Your task to perform on an android device: turn on the 24-hour format for clock Image 0: 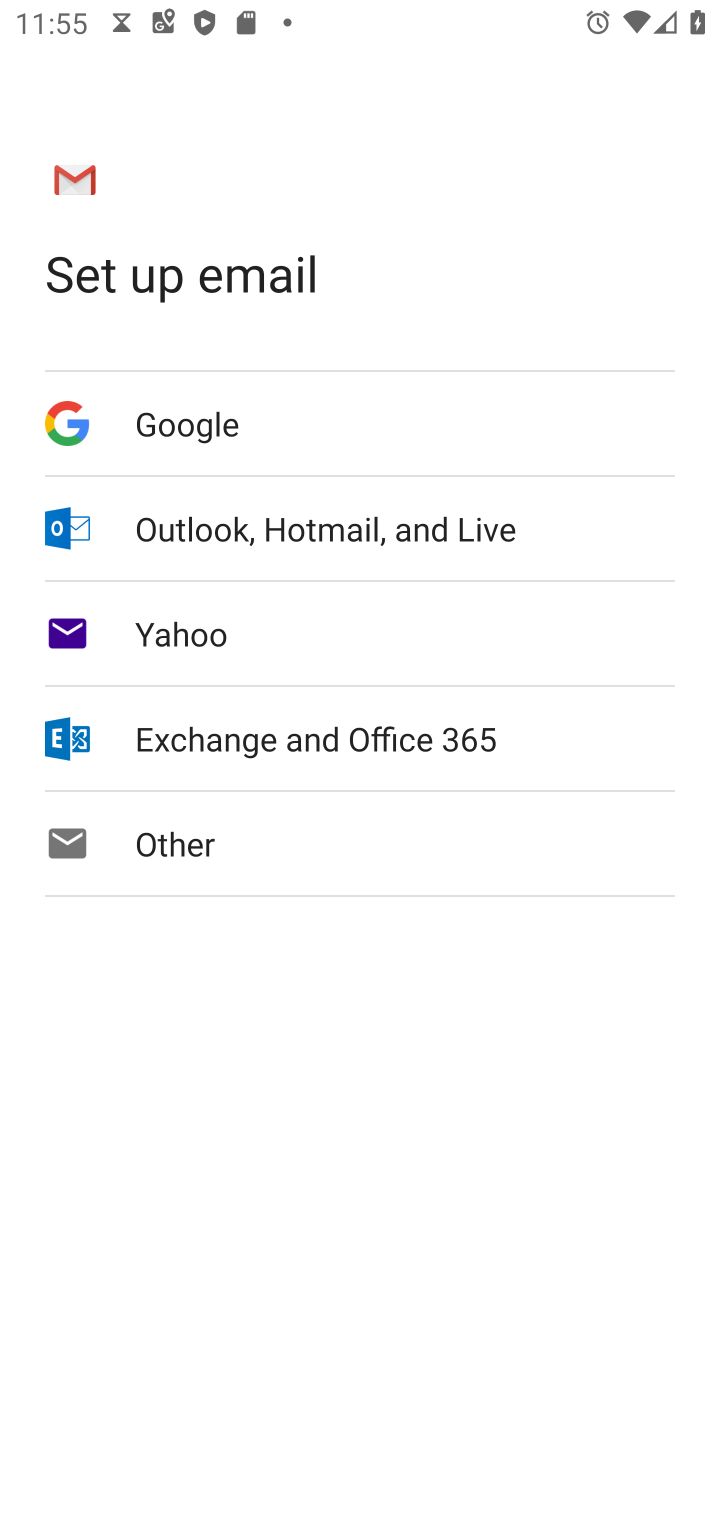
Step 0: press home button
Your task to perform on an android device: turn on the 24-hour format for clock Image 1: 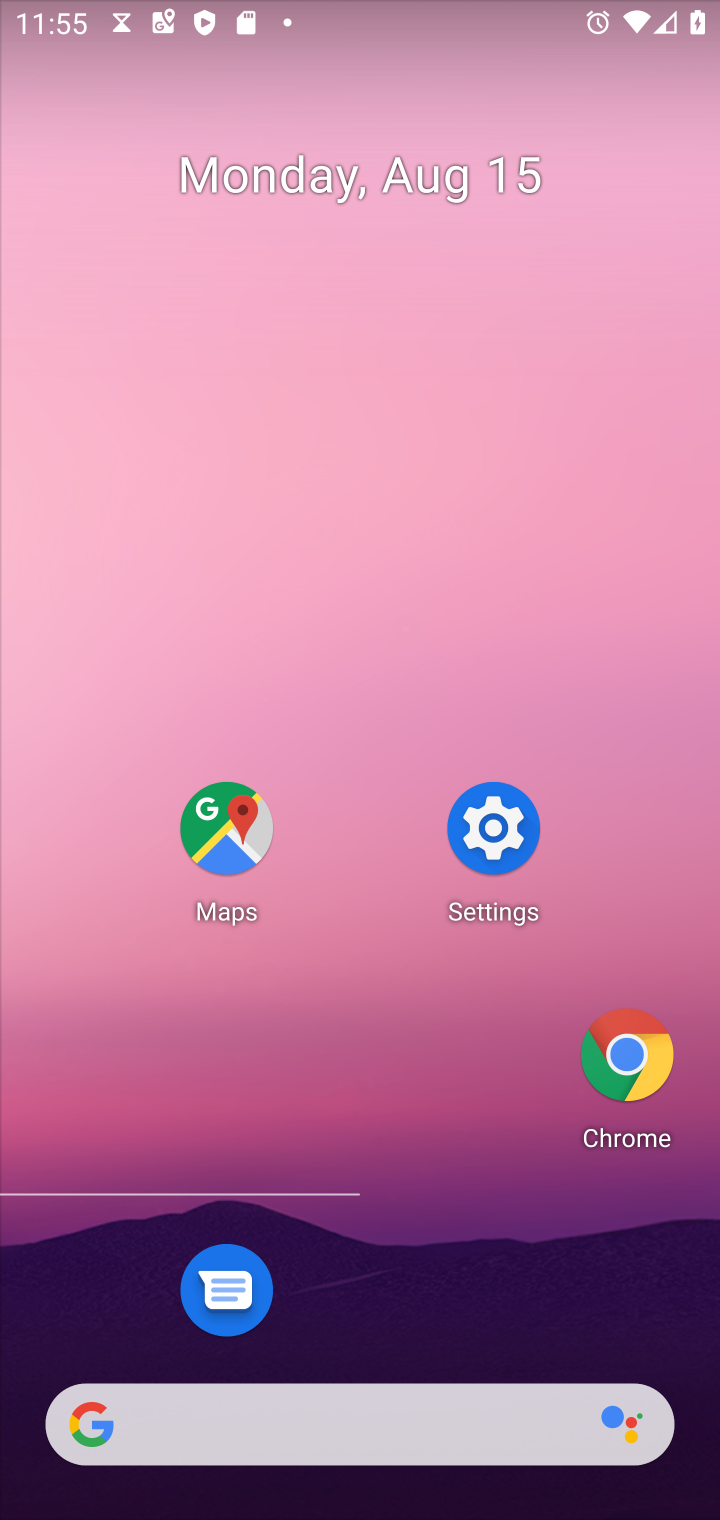
Step 1: drag from (351, 1333) to (645, 0)
Your task to perform on an android device: turn on the 24-hour format for clock Image 2: 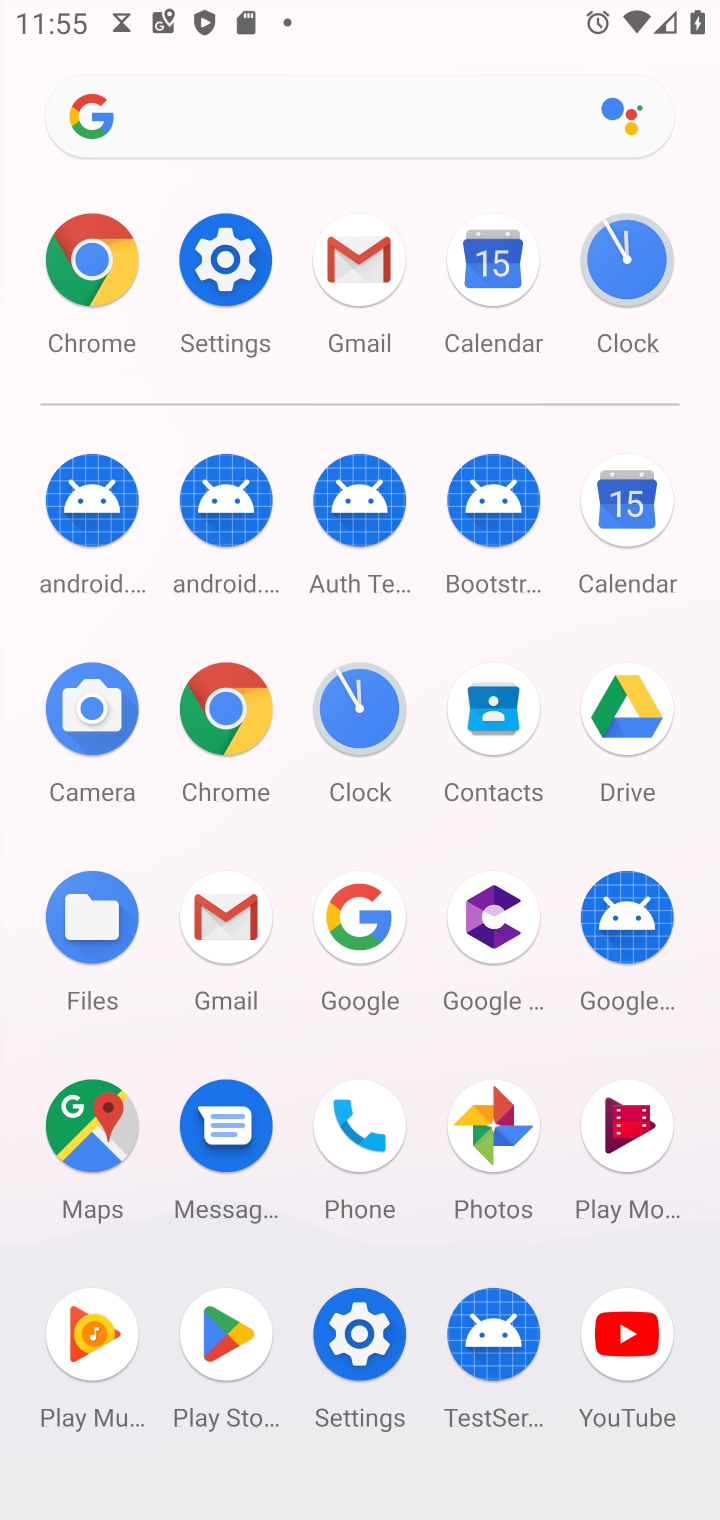
Step 2: click (362, 706)
Your task to perform on an android device: turn on the 24-hour format for clock Image 3: 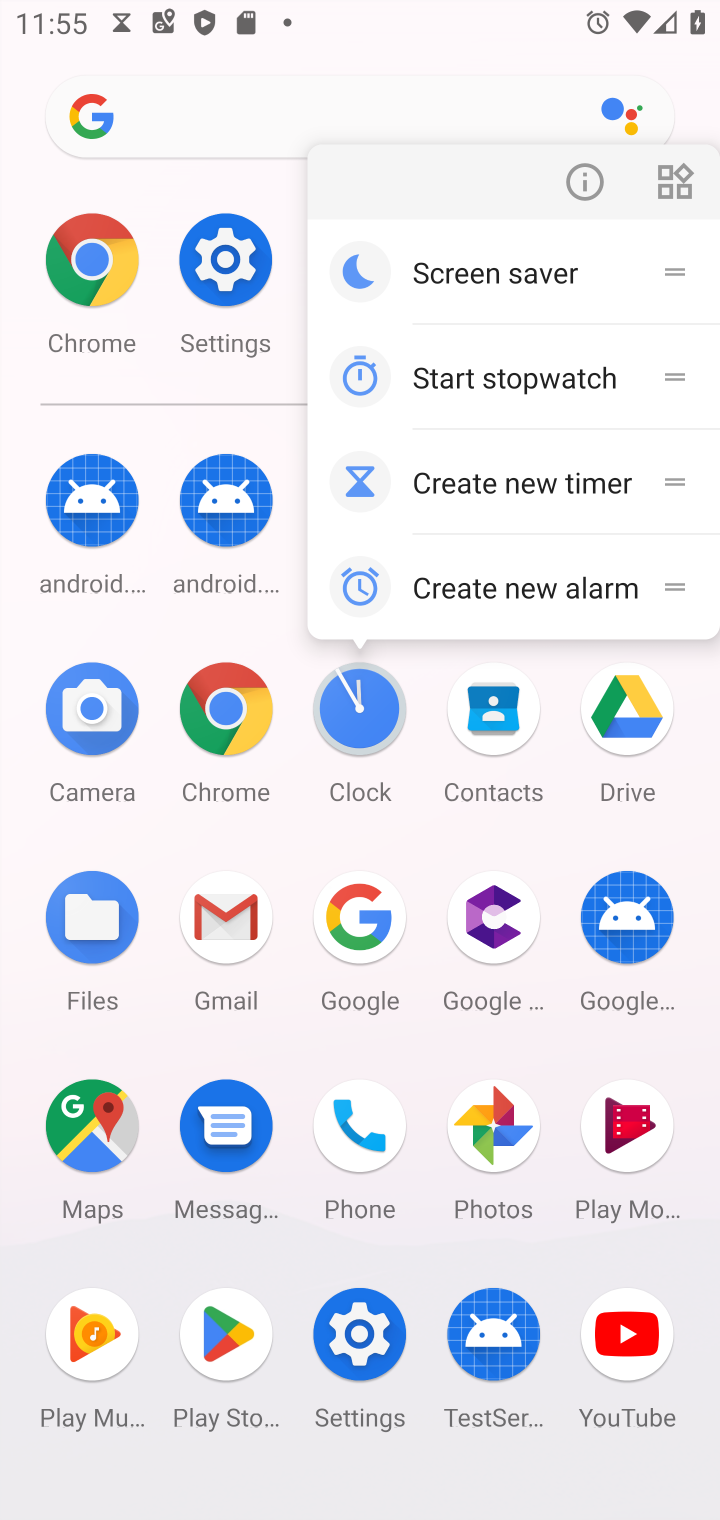
Step 3: click (362, 706)
Your task to perform on an android device: turn on the 24-hour format for clock Image 4: 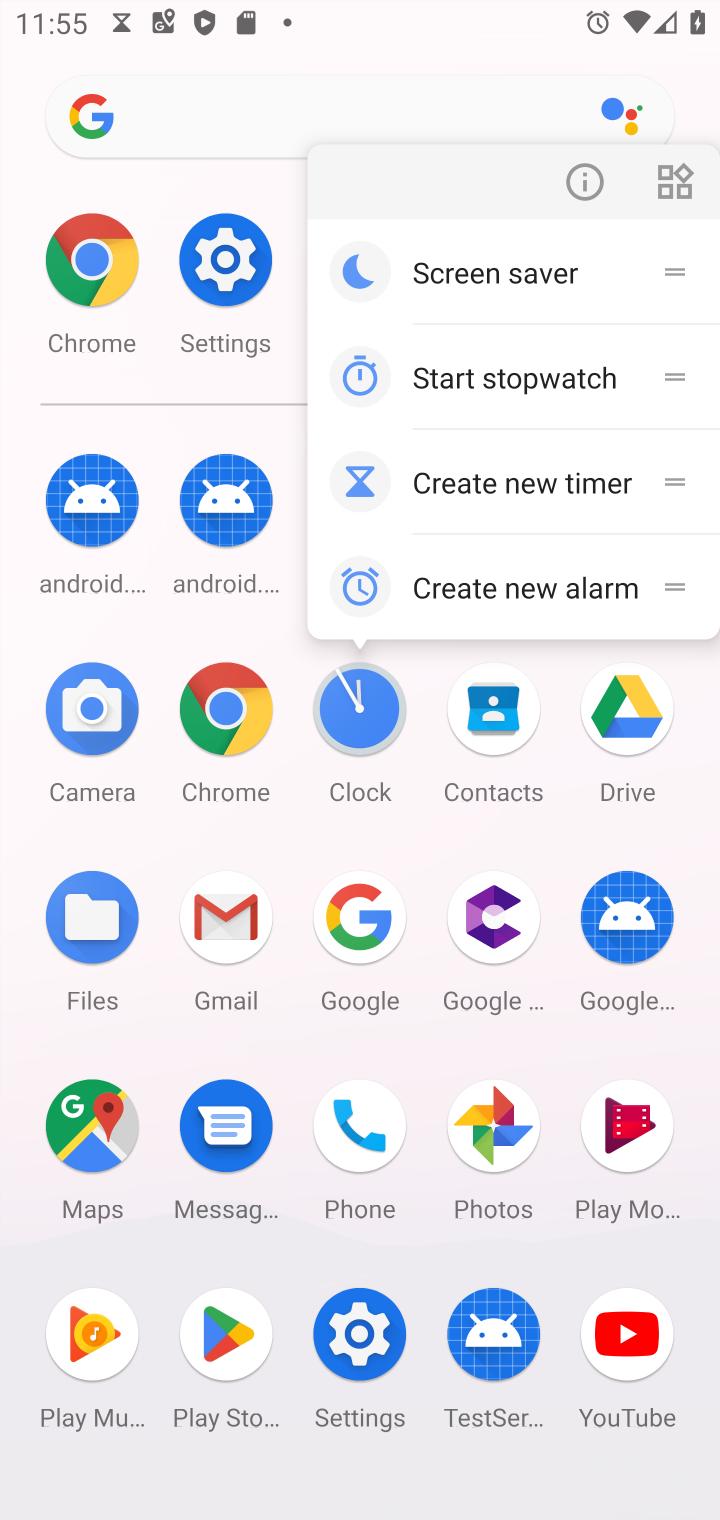
Step 4: click (362, 713)
Your task to perform on an android device: turn on the 24-hour format for clock Image 5: 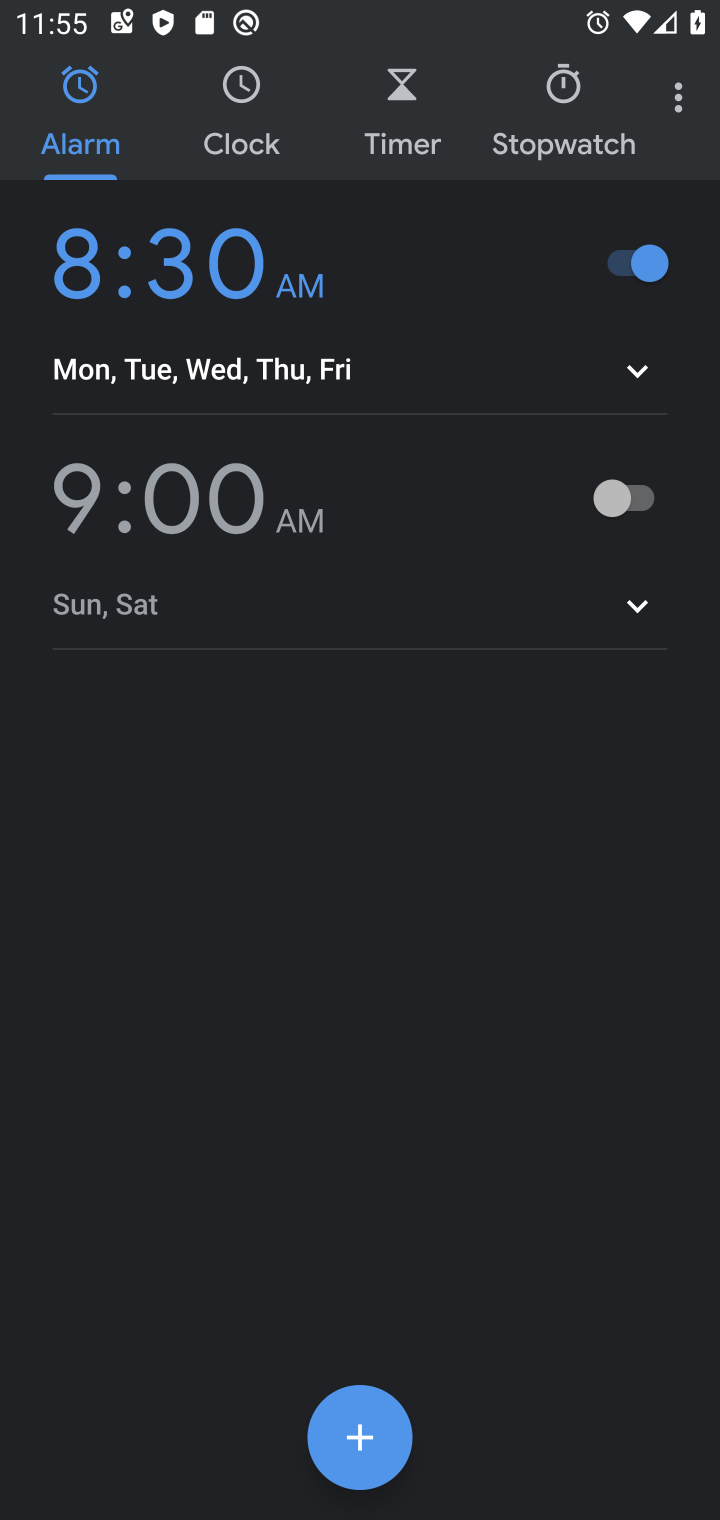
Step 5: click (670, 105)
Your task to perform on an android device: turn on the 24-hour format for clock Image 6: 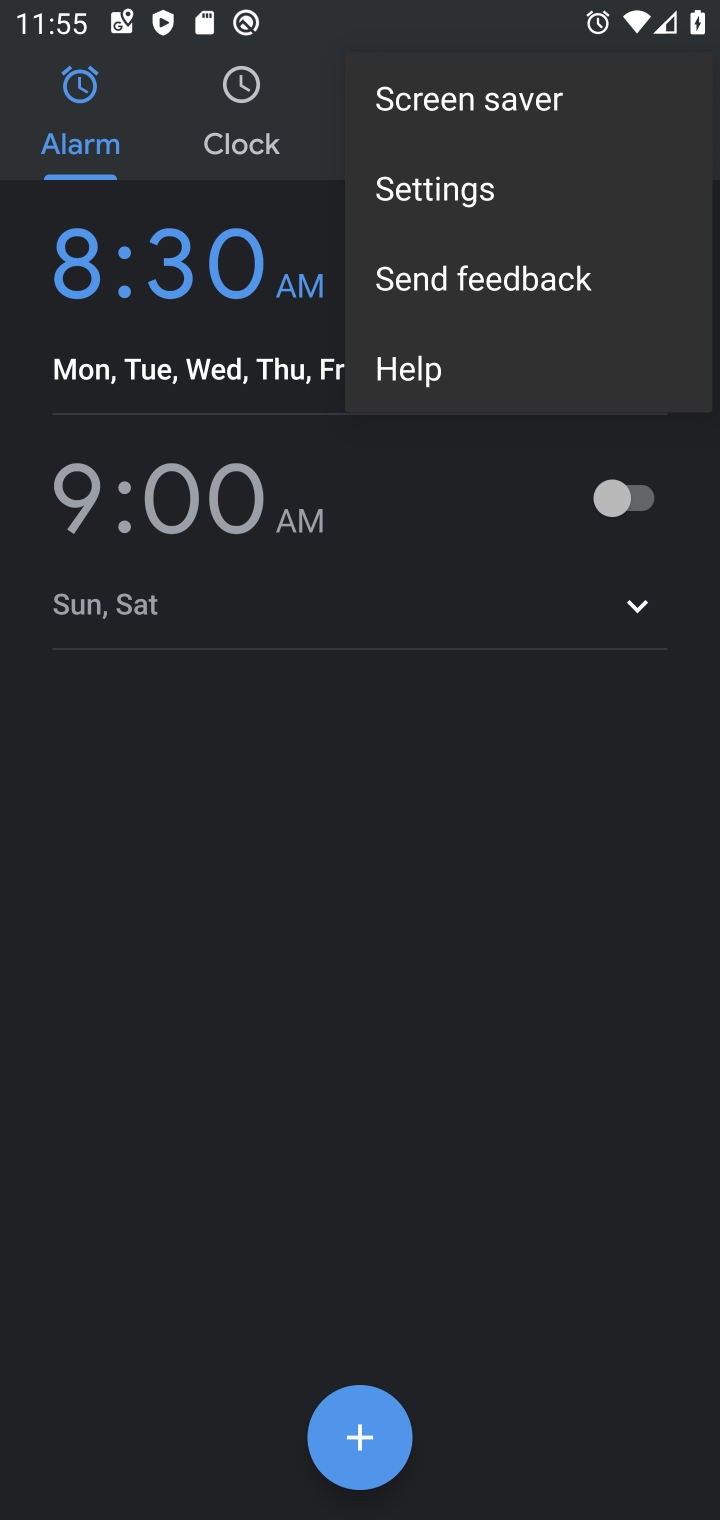
Step 6: click (474, 193)
Your task to perform on an android device: turn on the 24-hour format for clock Image 7: 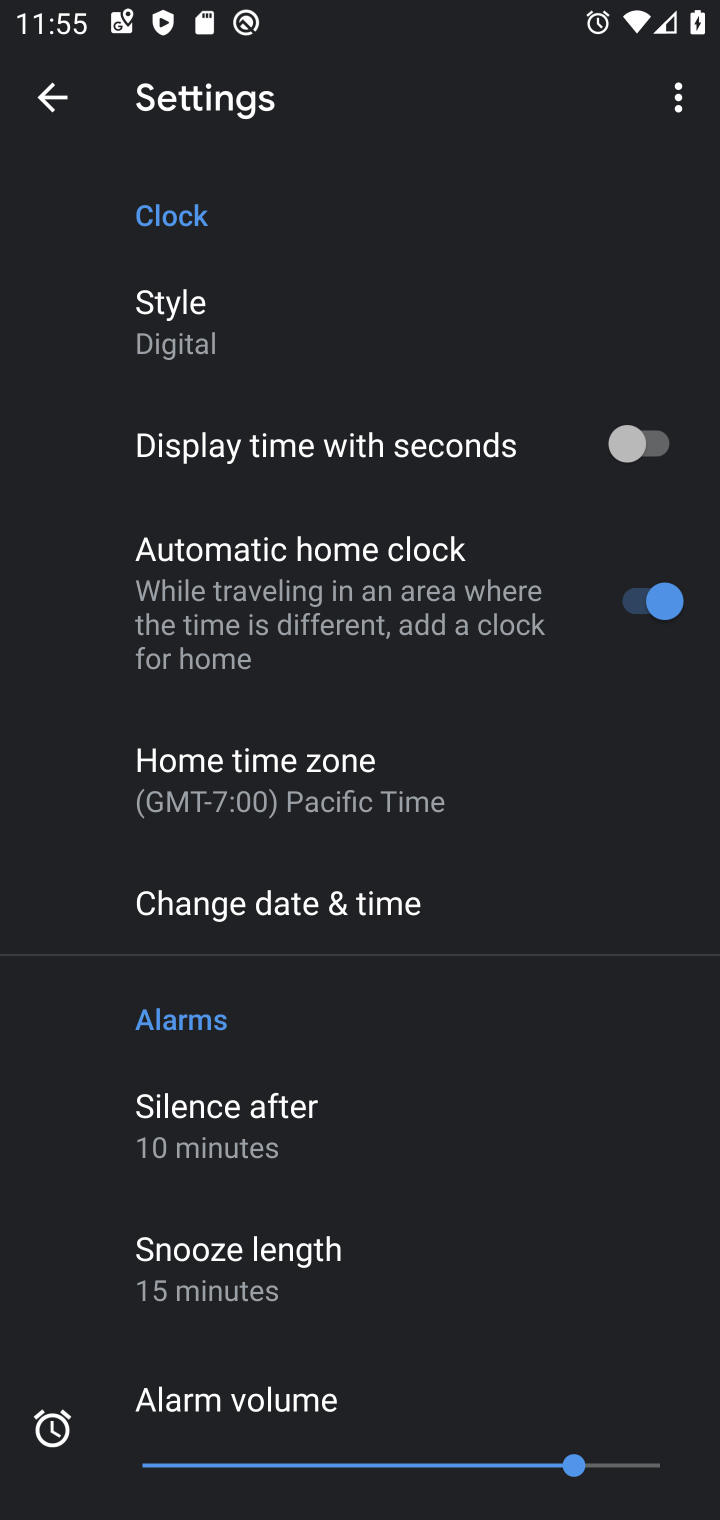
Step 7: click (349, 894)
Your task to perform on an android device: turn on the 24-hour format for clock Image 8: 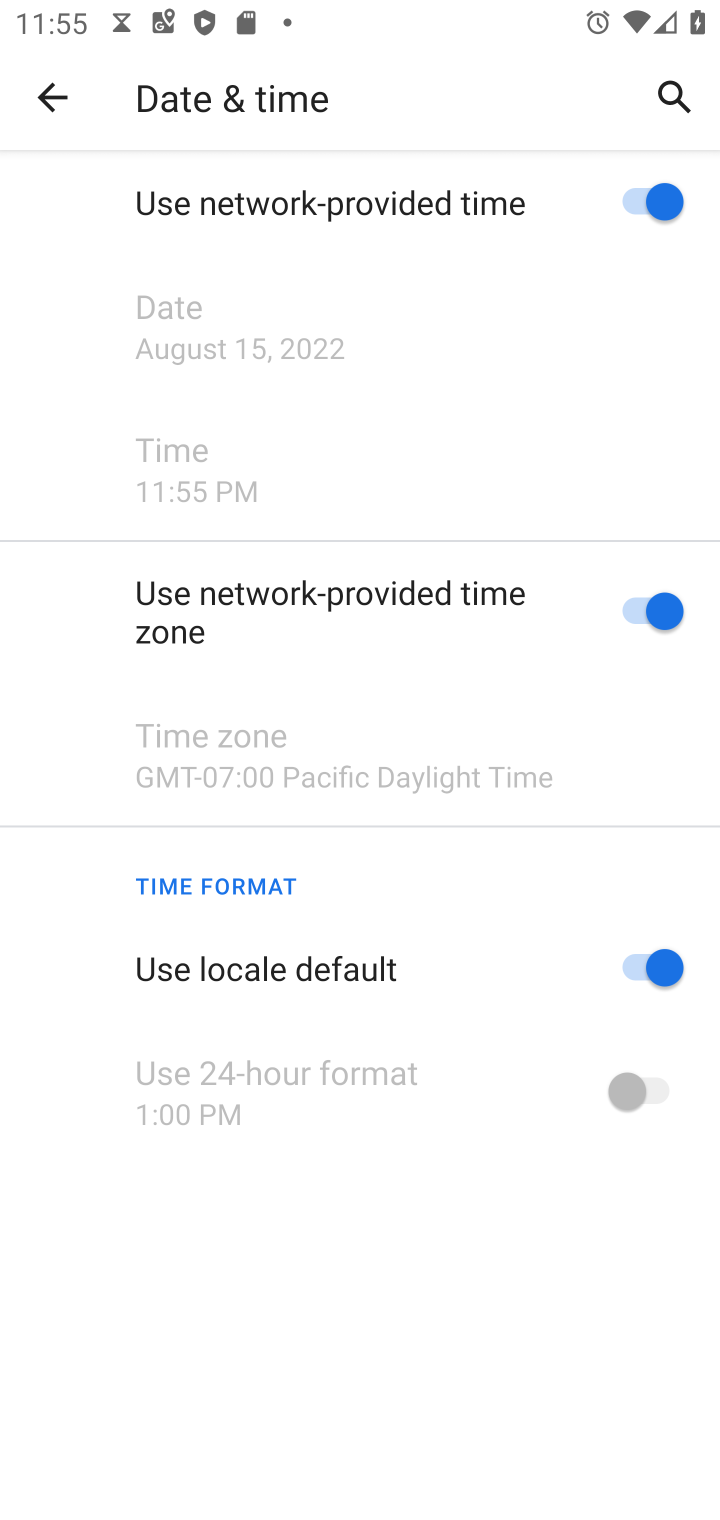
Step 8: click (625, 955)
Your task to perform on an android device: turn on the 24-hour format for clock Image 9: 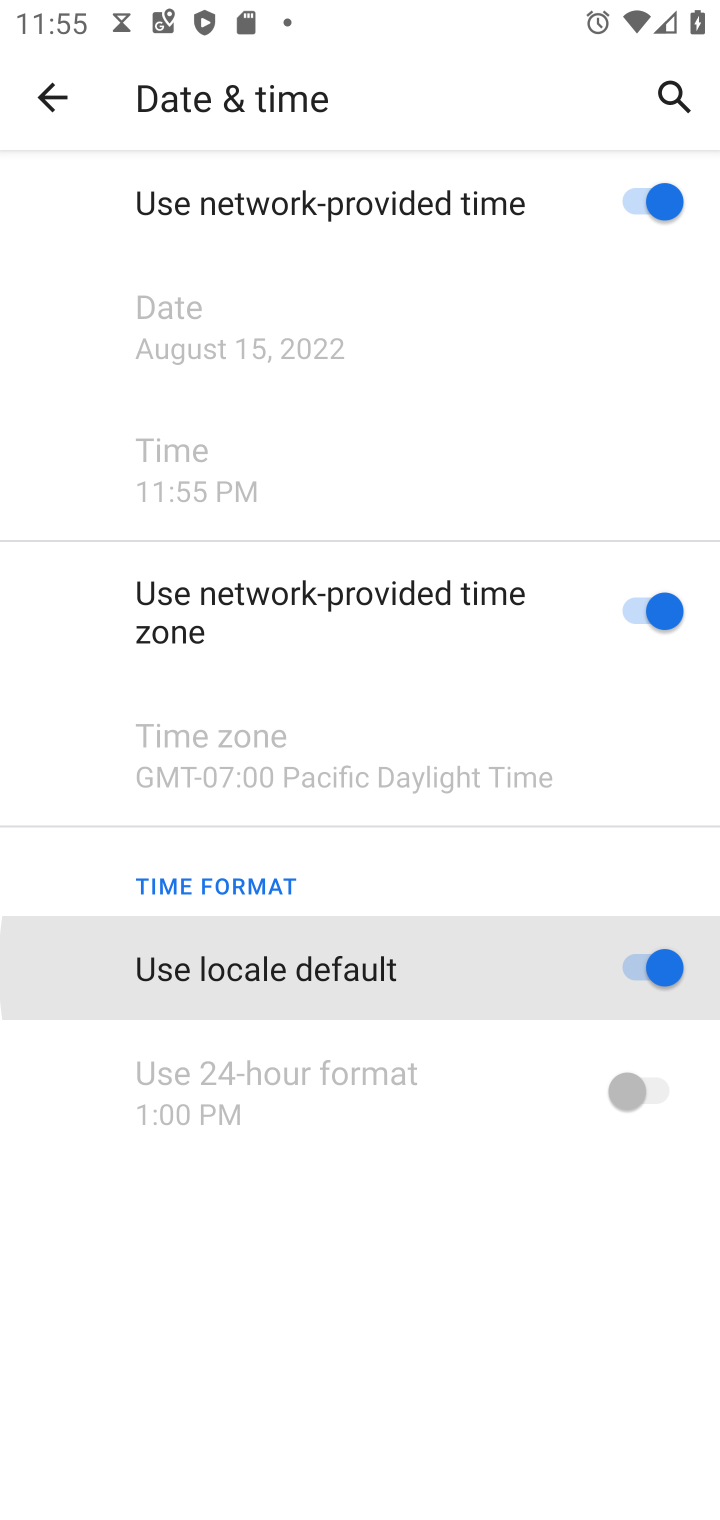
Step 9: click (649, 1072)
Your task to perform on an android device: turn on the 24-hour format for clock Image 10: 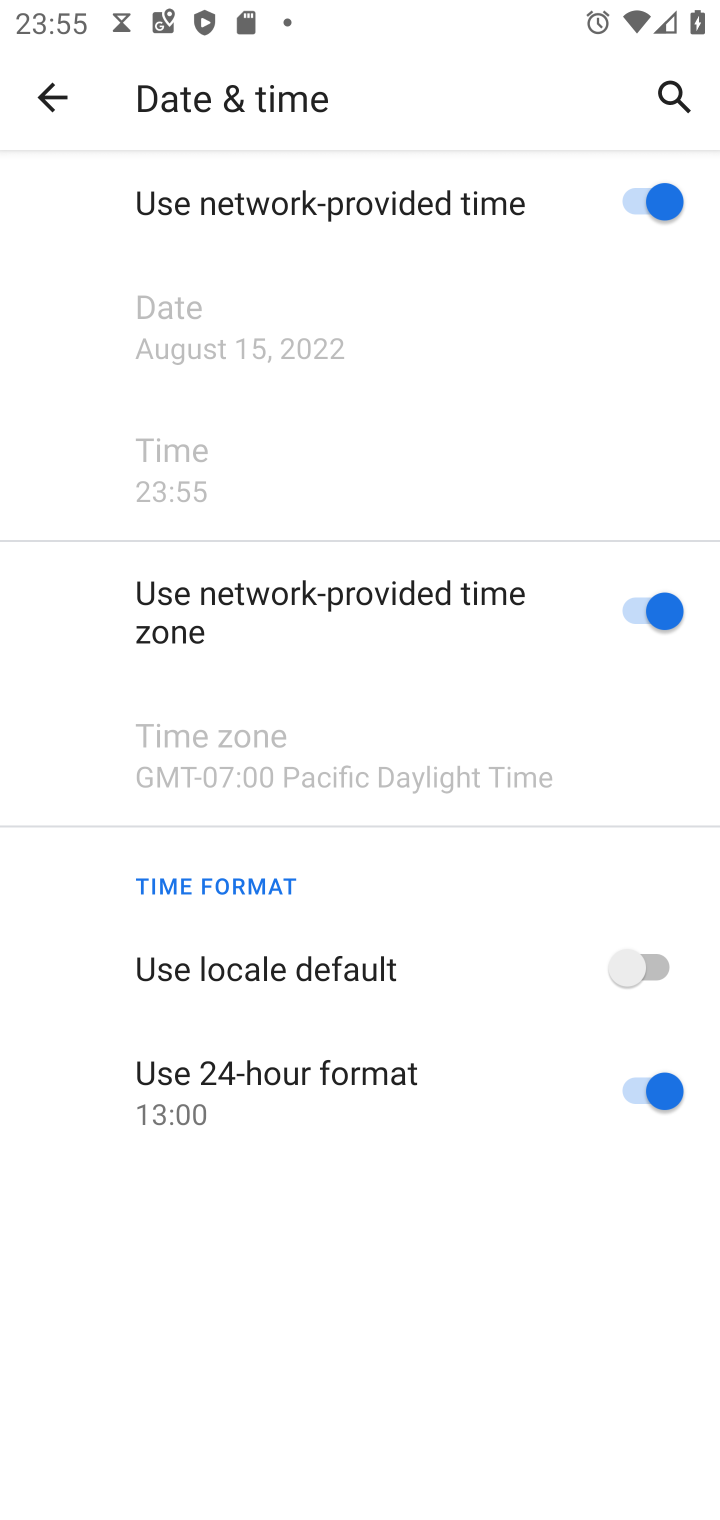
Step 10: task complete